Your task to perform on an android device: Open the phone app and click the voicemail tab. Image 0: 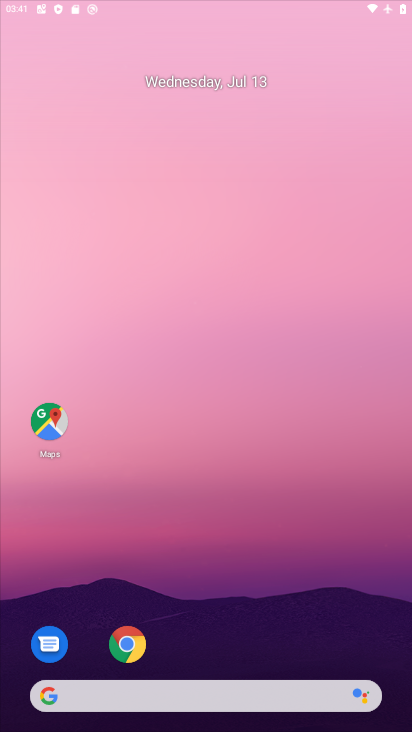
Step 0: click (150, 98)
Your task to perform on an android device: Open the phone app and click the voicemail tab. Image 1: 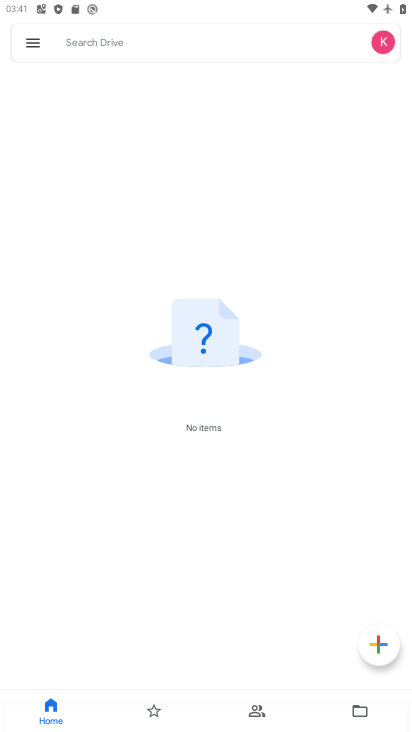
Step 1: press home button
Your task to perform on an android device: Open the phone app and click the voicemail tab. Image 2: 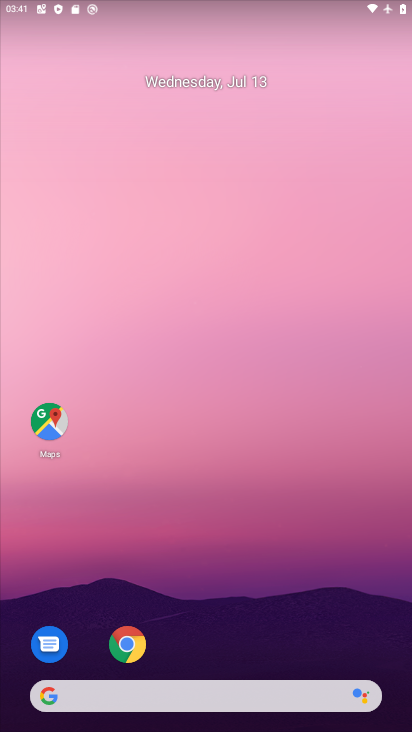
Step 2: drag from (290, 670) to (153, 171)
Your task to perform on an android device: Open the phone app and click the voicemail tab. Image 3: 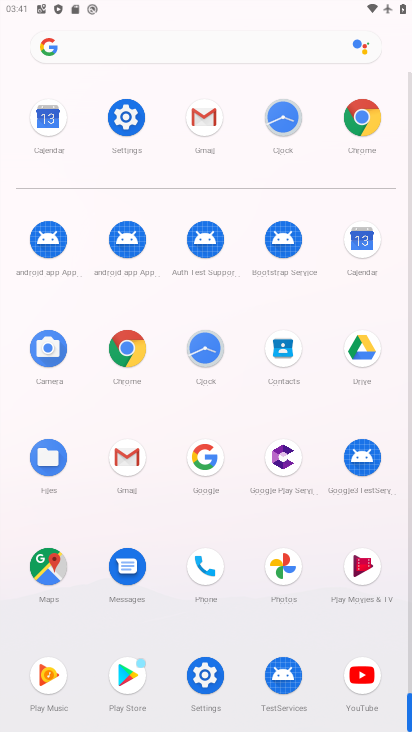
Step 3: click (198, 563)
Your task to perform on an android device: Open the phone app and click the voicemail tab. Image 4: 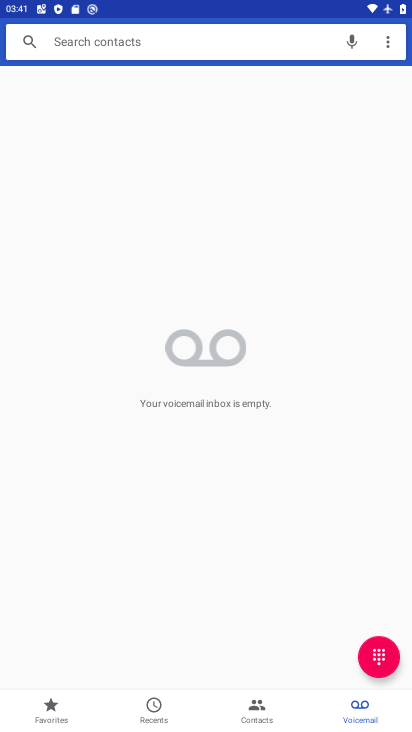
Step 4: click (360, 709)
Your task to perform on an android device: Open the phone app and click the voicemail tab. Image 5: 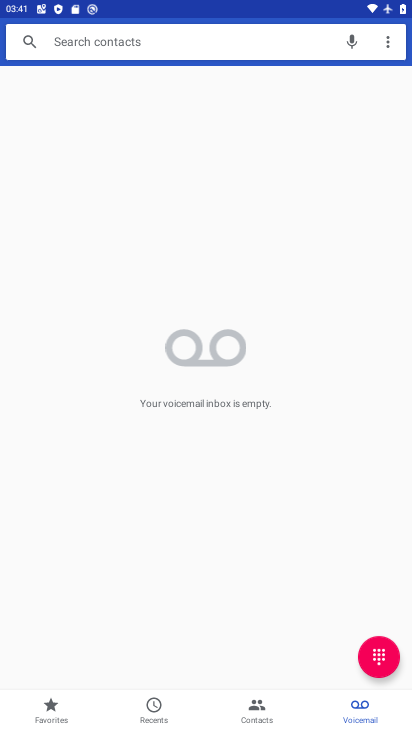
Step 5: task complete